Your task to perform on an android device: see creations saved in the google photos Image 0: 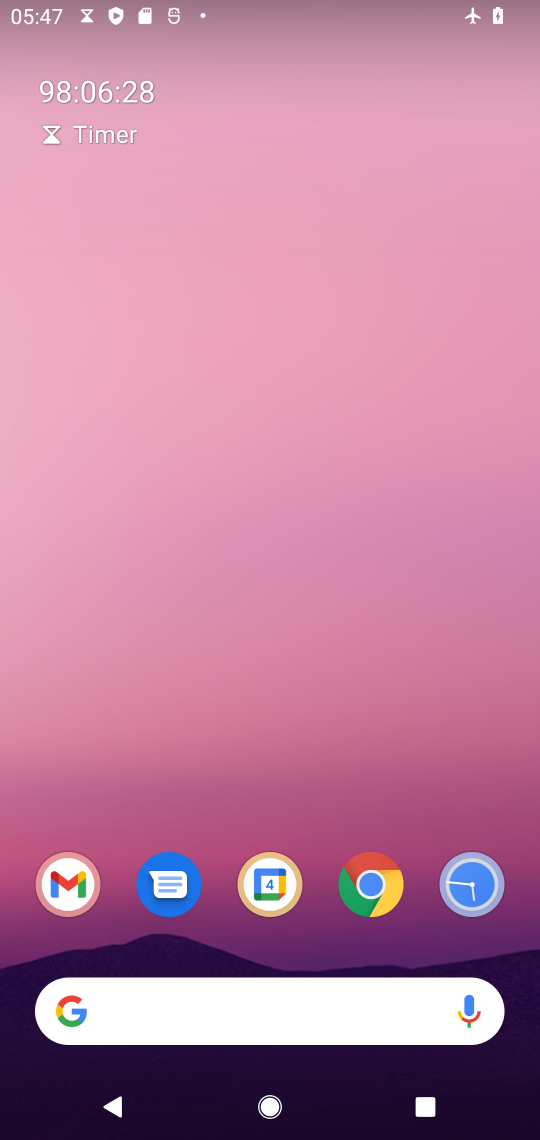
Step 0: drag from (215, 920) to (245, 23)
Your task to perform on an android device: see creations saved in the google photos Image 1: 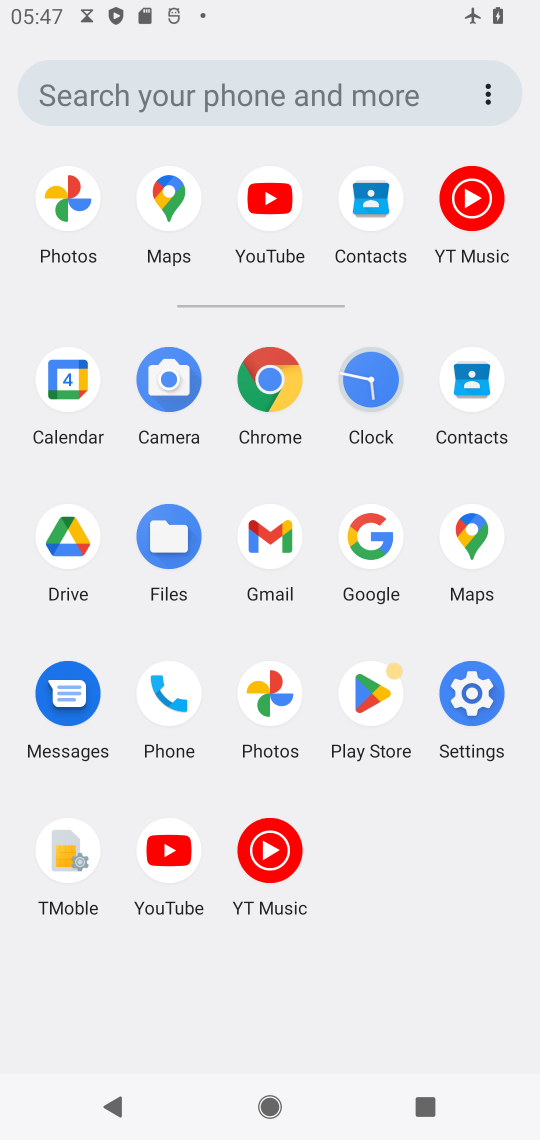
Step 1: click (277, 688)
Your task to perform on an android device: see creations saved in the google photos Image 2: 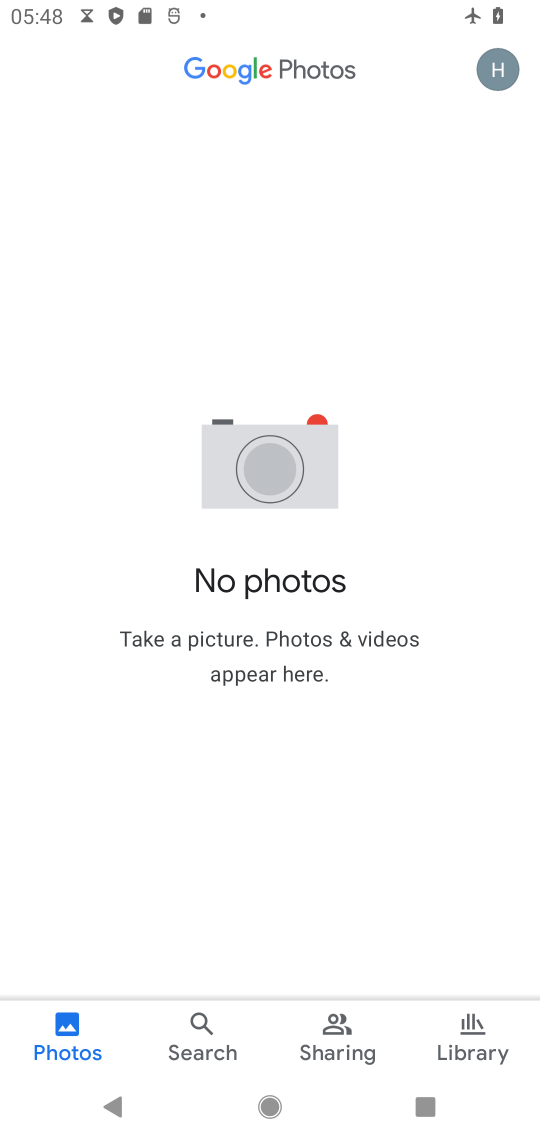
Step 2: task complete